Your task to perform on an android device: Go to calendar. Show me events next week Image 0: 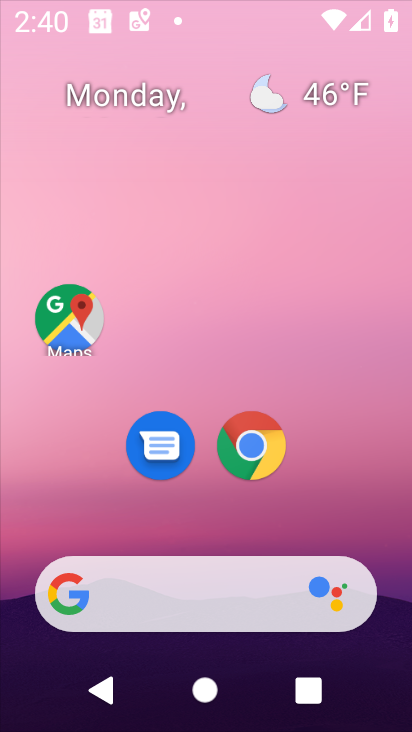
Step 0: drag from (301, 70) to (292, 4)
Your task to perform on an android device: Go to calendar. Show me events next week Image 1: 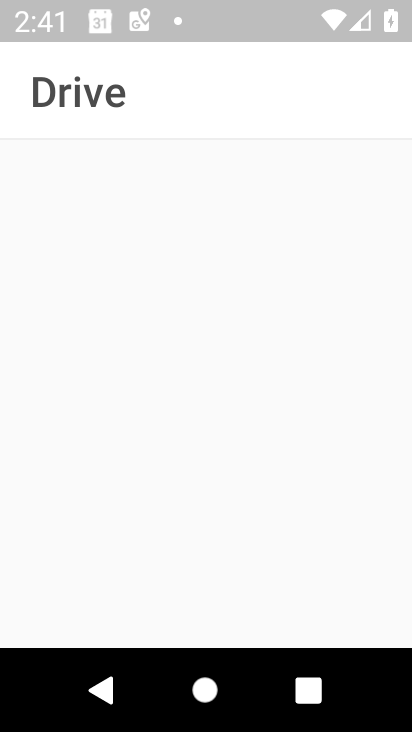
Step 1: press home button
Your task to perform on an android device: Go to calendar. Show me events next week Image 2: 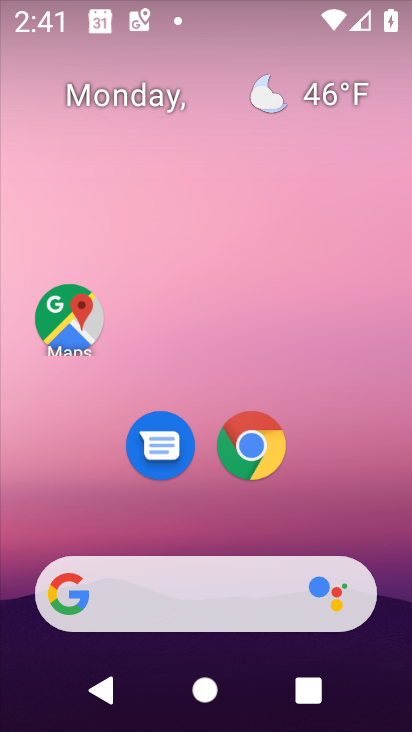
Step 2: drag from (323, 486) to (337, 143)
Your task to perform on an android device: Go to calendar. Show me events next week Image 3: 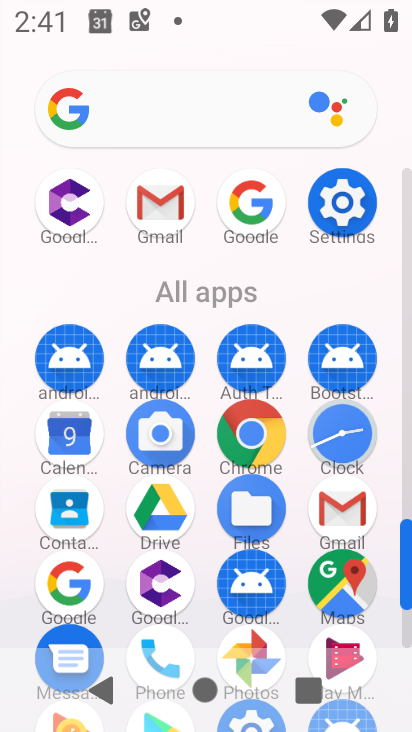
Step 3: click (77, 446)
Your task to perform on an android device: Go to calendar. Show me events next week Image 4: 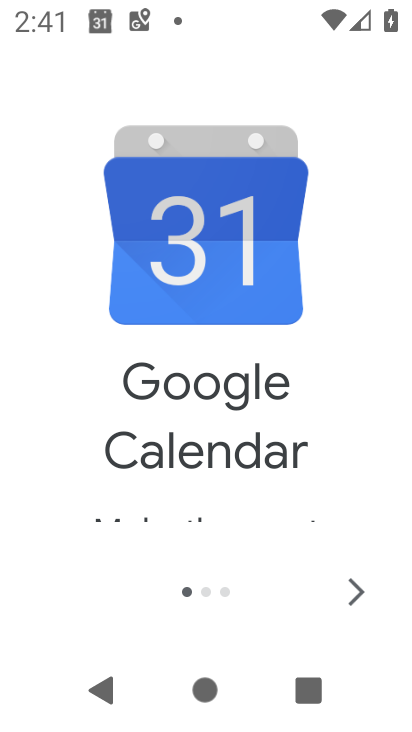
Step 4: click (345, 584)
Your task to perform on an android device: Go to calendar. Show me events next week Image 5: 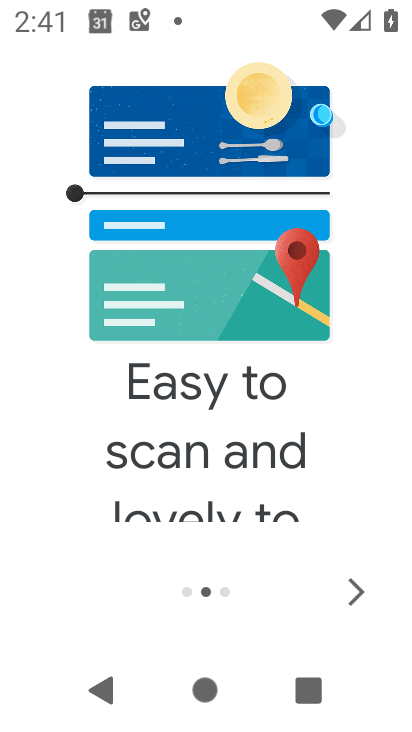
Step 5: click (350, 596)
Your task to perform on an android device: Go to calendar. Show me events next week Image 6: 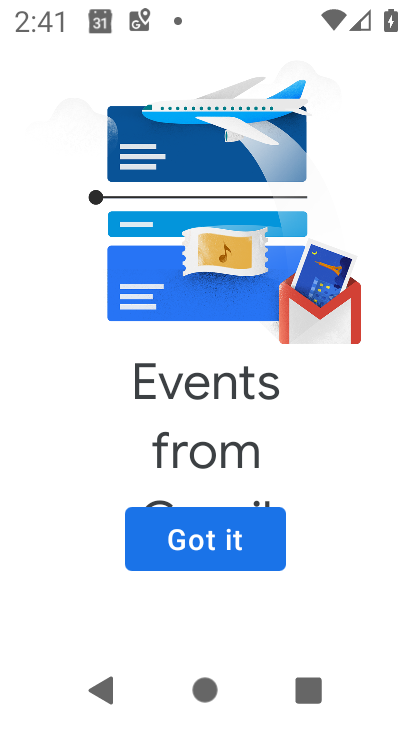
Step 6: click (211, 536)
Your task to perform on an android device: Go to calendar. Show me events next week Image 7: 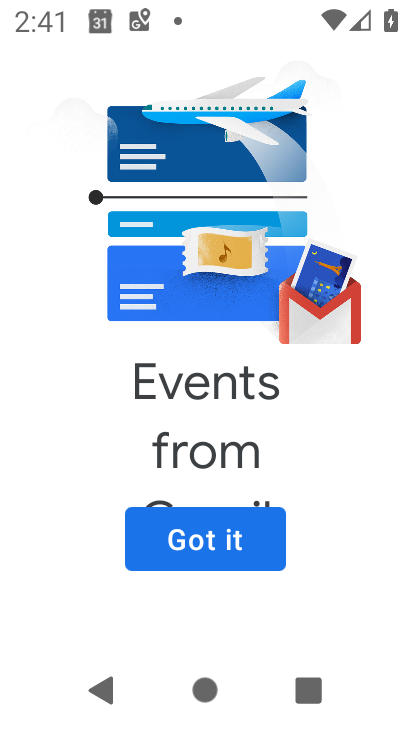
Step 7: click (212, 536)
Your task to perform on an android device: Go to calendar. Show me events next week Image 8: 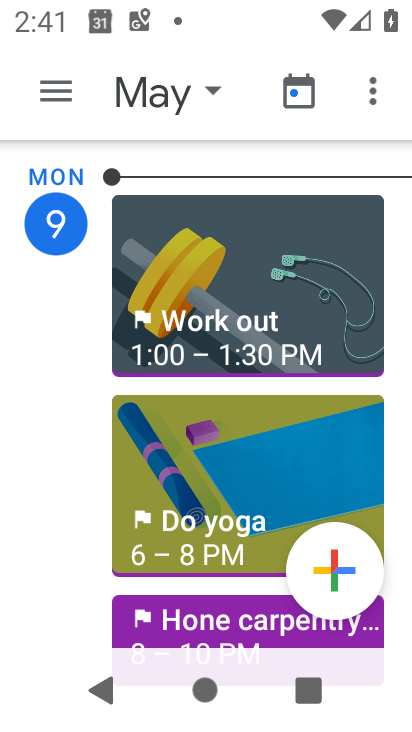
Step 8: click (159, 105)
Your task to perform on an android device: Go to calendar. Show me events next week Image 9: 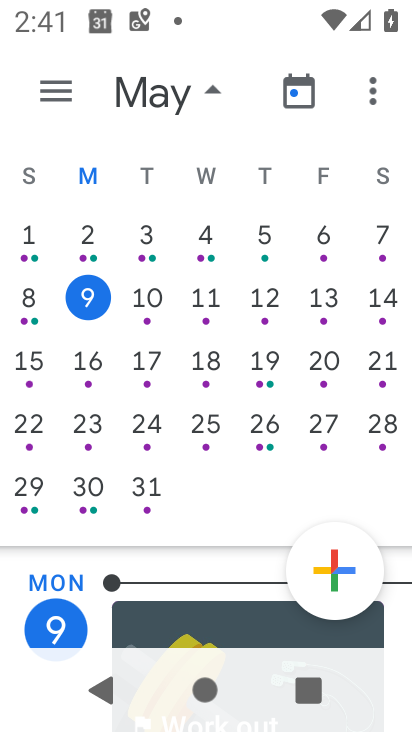
Step 9: click (31, 370)
Your task to perform on an android device: Go to calendar. Show me events next week Image 10: 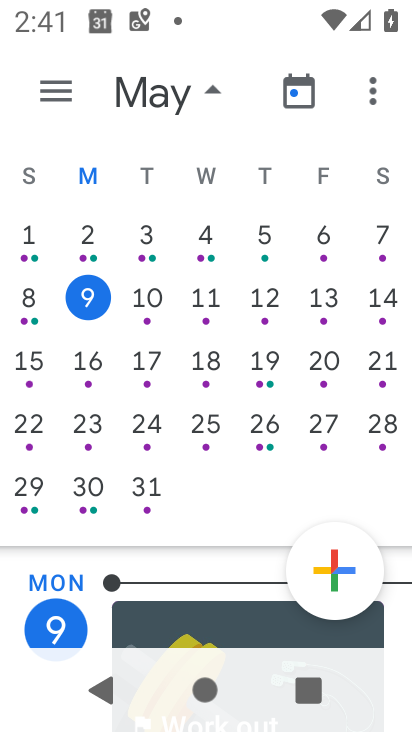
Step 10: click (26, 374)
Your task to perform on an android device: Go to calendar. Show me events next week Image 11: 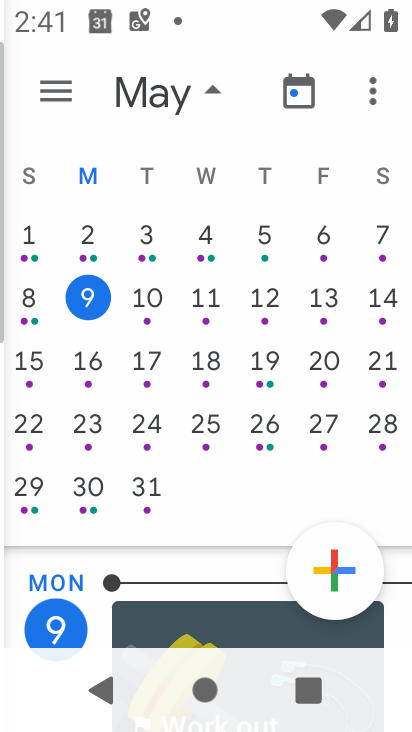
Step 11: click (93, 368)
Your task to perform on an android device: Go to calendar. Show me events next week Image 12: 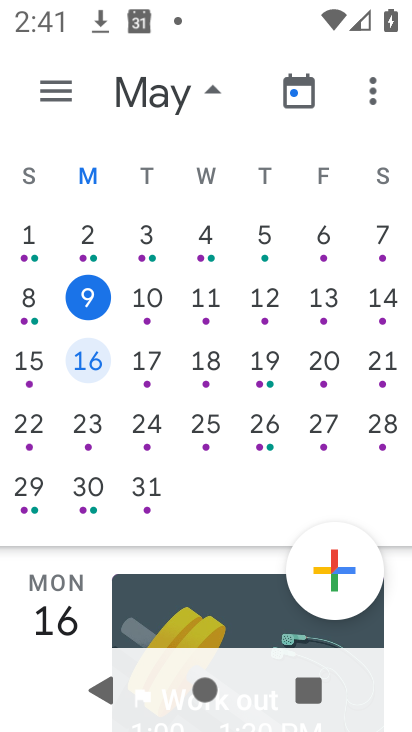
Step 12: click (146, 374)
Your task to perform on an android device: Go to calendar. Show me events next week Image 13: 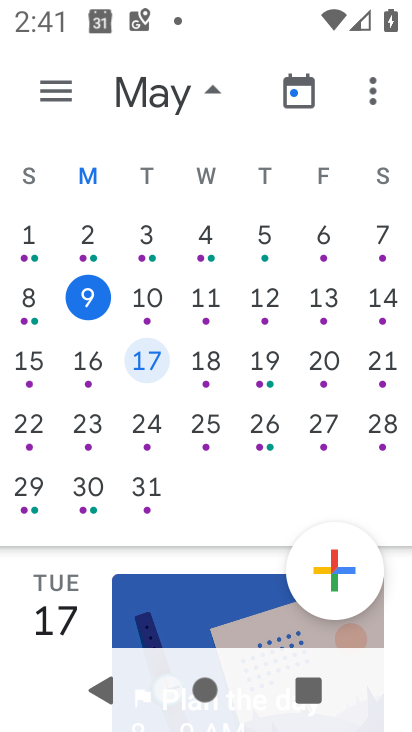
Step 13: click (210, 370)
Your task to perform on an android device: Go to calendar. Show me events next week Image 14: 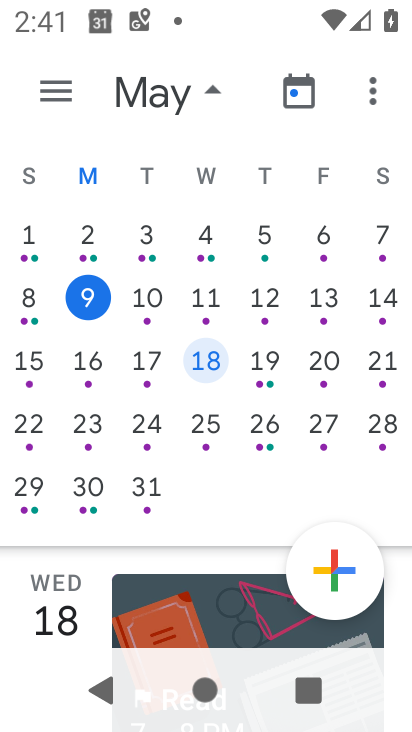
Step 14: click (271, 377)
Your task to perform on an android device: Go to calendar. Show me events next week Image 15: 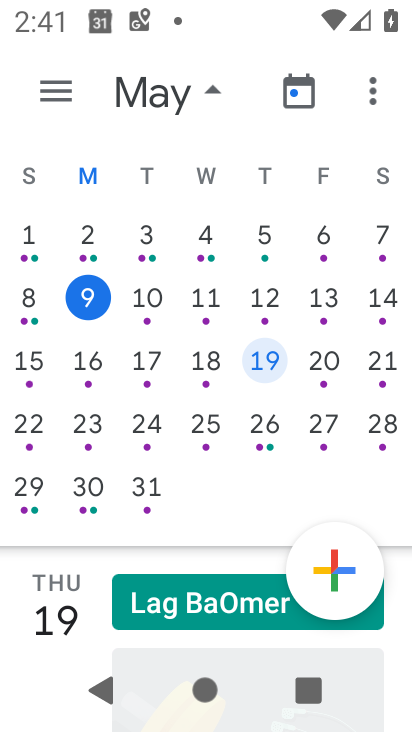
Step 15: click (310, 381)
Your task to perform on an android device: Go to calendar. Show me events next week Image 16: 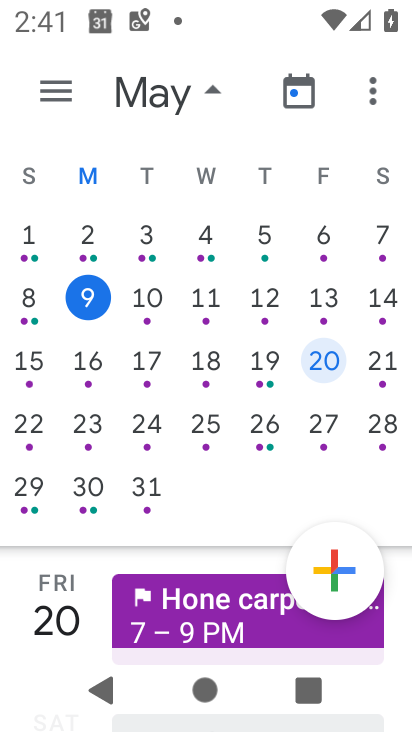
Step 16: click (381, 388)
Your task to perform on an android device: Go to calendar. Show me events next week Image 17: 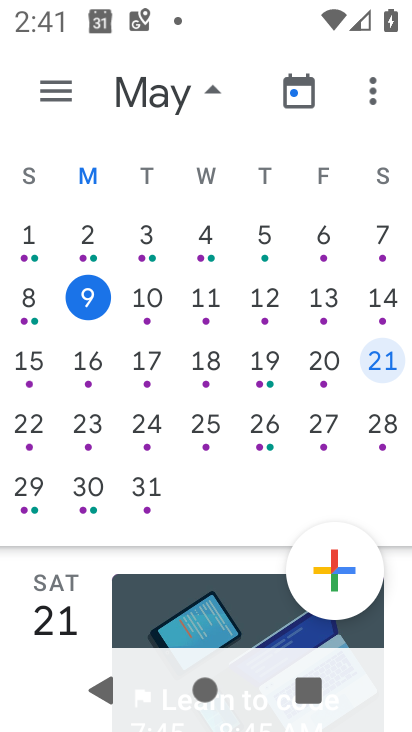
Step 17: task complete